Your task to perform on an android device: Open calendar and show me the third week of next month Image 0: 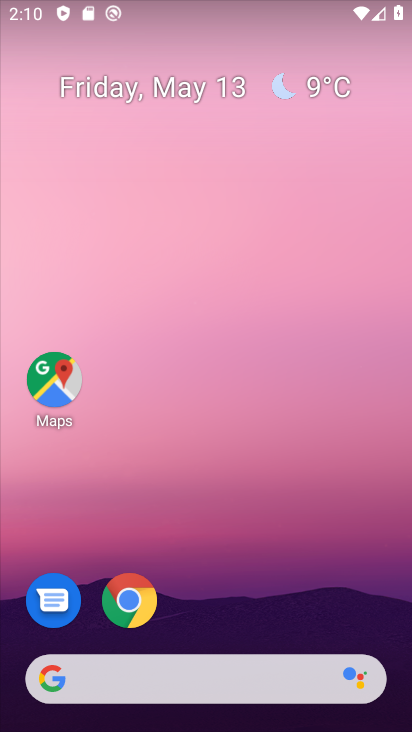
Step 0: click (151, 91)
Your task to perform on an android device: Open calendar and show me the third week of next month Image 1: 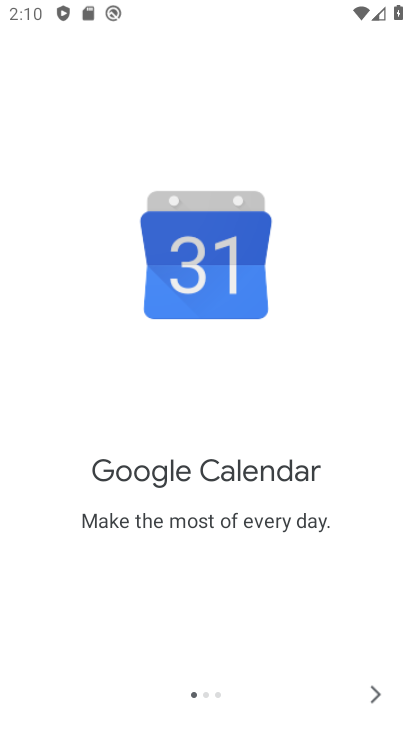
Step 1: click (383, 695)
Your task to perform on an android device: Open calendar and show me the third week of next month Image 2: 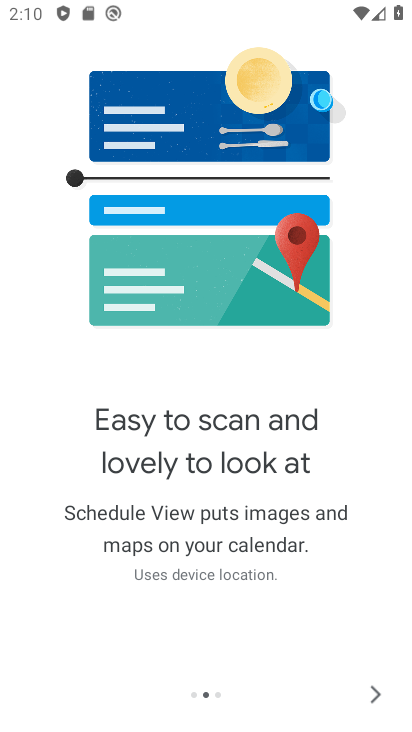
Step 2: click (373, 692)
Your task to perform on an android device: Open calendar and show me the third week of next month Image 3: 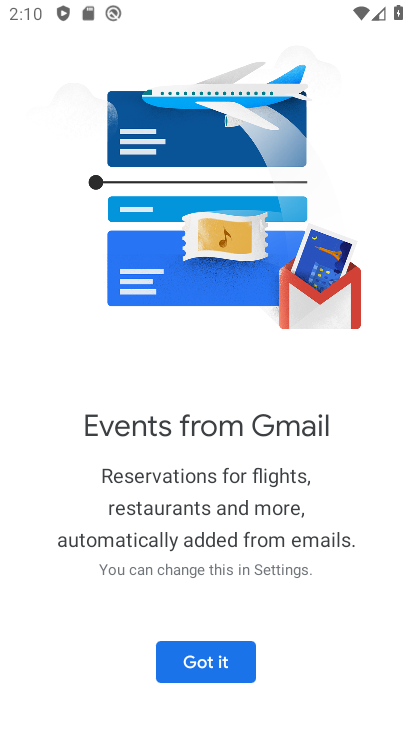
Step 3: click (234, 660)
Your task to perform on an android device: Open calendar and show me the third week of next month Image 4: 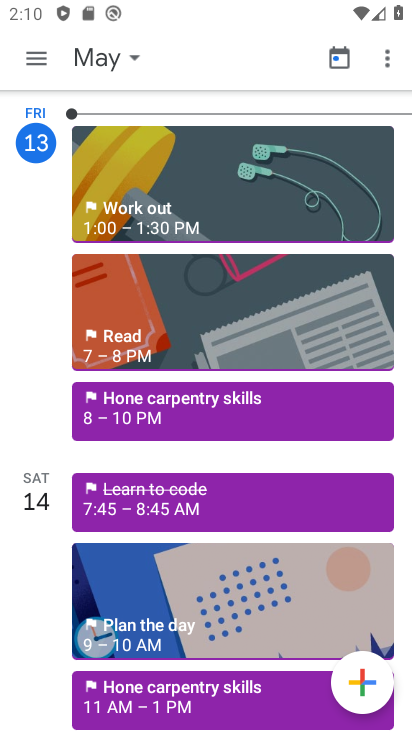
Step 4: click (125, 56)
Your task to perform on an android device: Open calendar and show me the third week of next month Image 5: 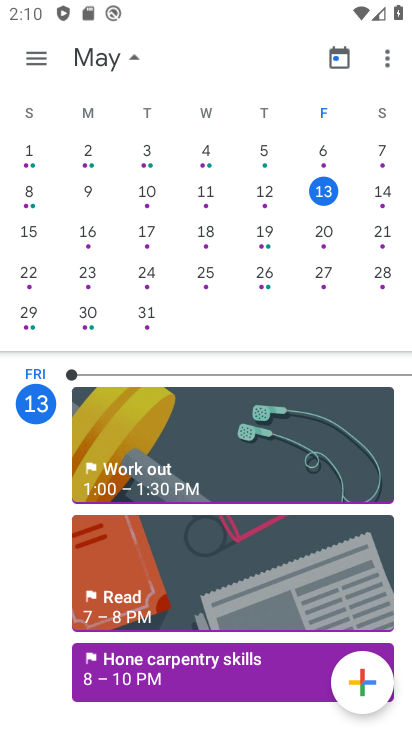
Step 5: drag from (349, 197) to (4, 215)
Your task to perform on an android device: Open calendar and show me the third week of next month Image 6: 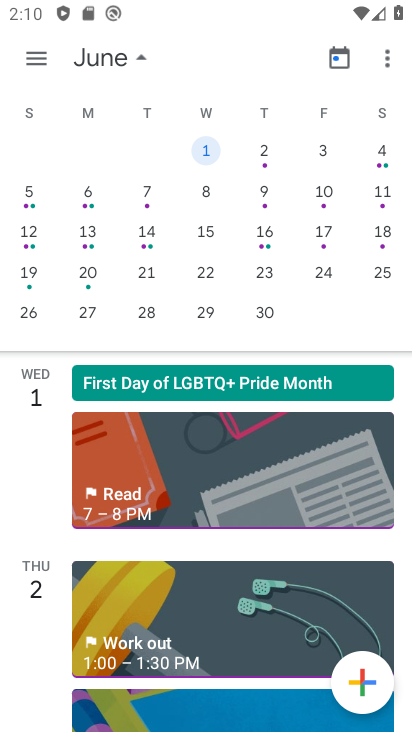
Step 6: click (208, 230)
Your task to perform on an android device: Open calendar and show me the third week of next month Image 7: 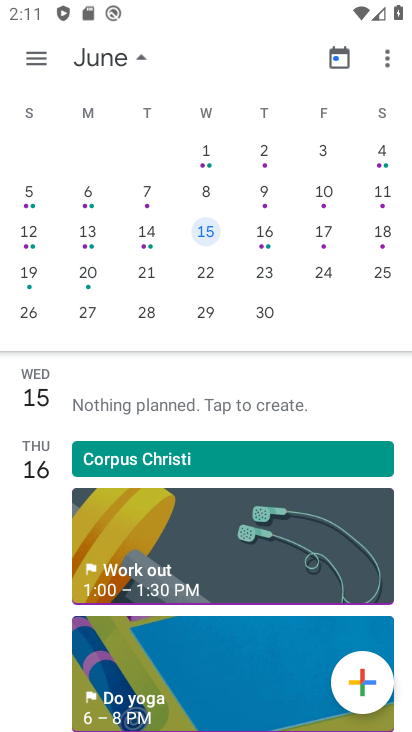
Step 7: task complete